Your task to perform on an android device: open app "Pandora - Music & Podcasts" (install if not already installed) and go to login screen Image 0: 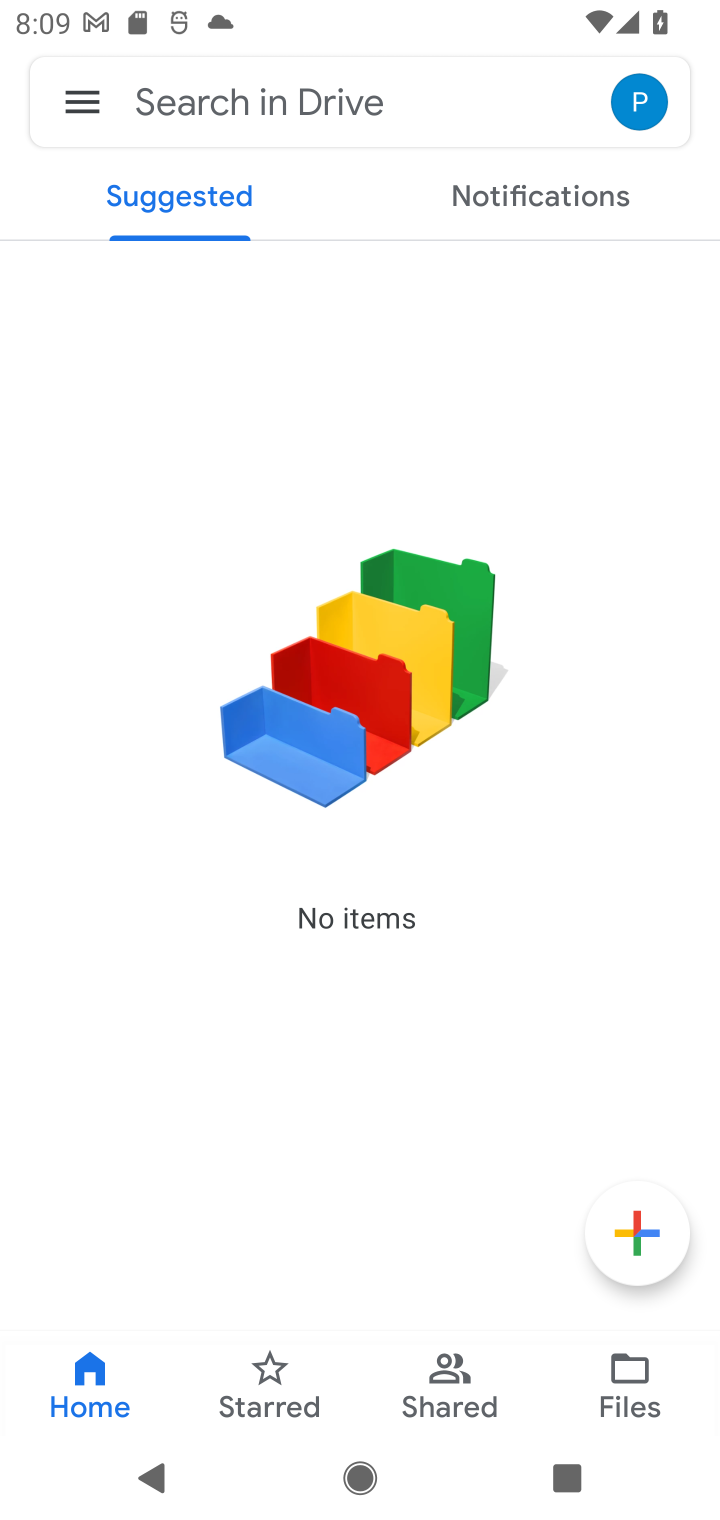
Step 0: press back button
Your task to perform on an android device: open app "Pandora - Music & Podcasts" (install if not already installed) and go to login screen Image 1: 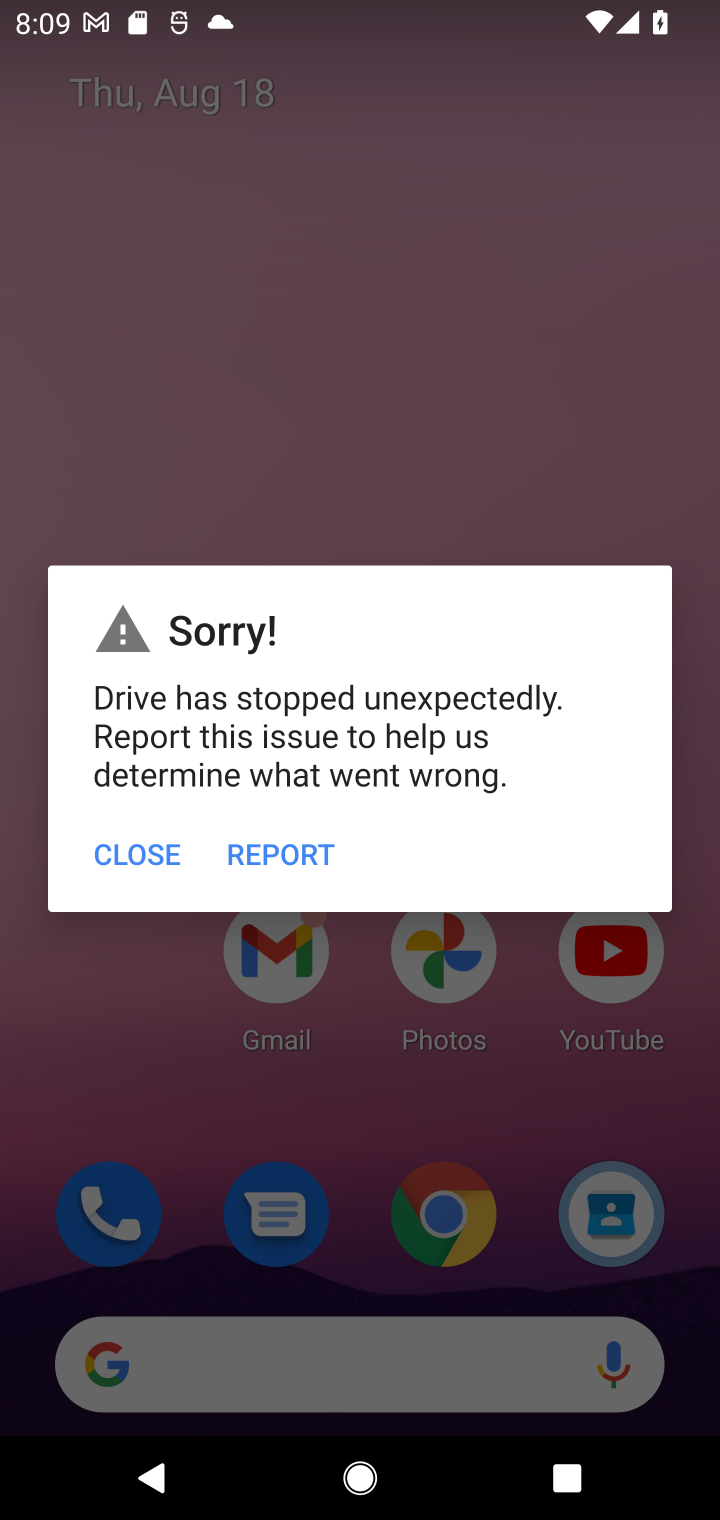
Step 1: click (122, 845)
Your task to perform on an android device: open app "Pandora - Music & Podcasts" (install if not already installed) and go to login screen Image 2: 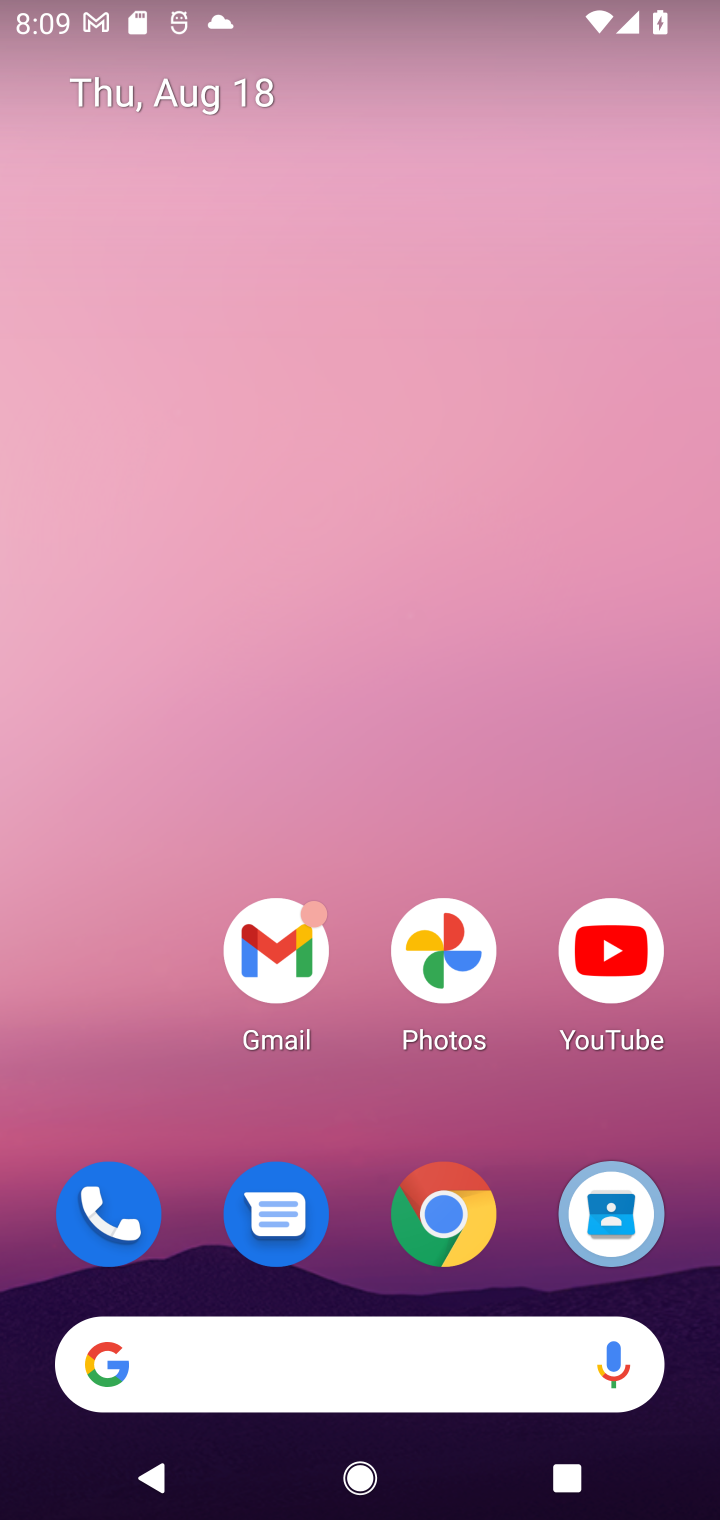
Step 2: drag from (138, 1056) to (275, 52)
Your task to perform on an android device: open app "Pandora - Music & Podcasts" (install if not already installed) and go to login screen Image 3: 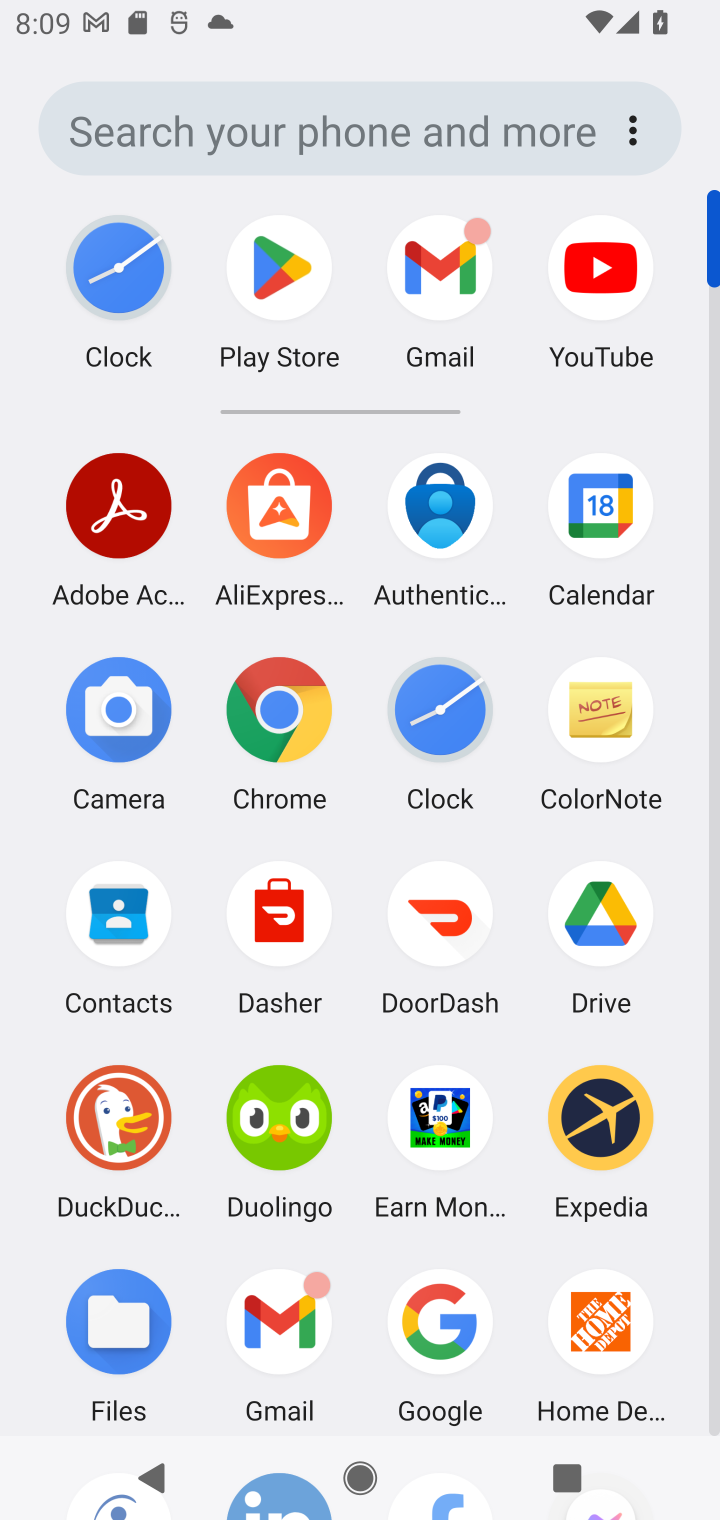
Step 3: click (278, 284)
Your task to perform on an android device: open app "Pandora - Music & Podcasts" (install if not already installed) and go to login screen Image 4: 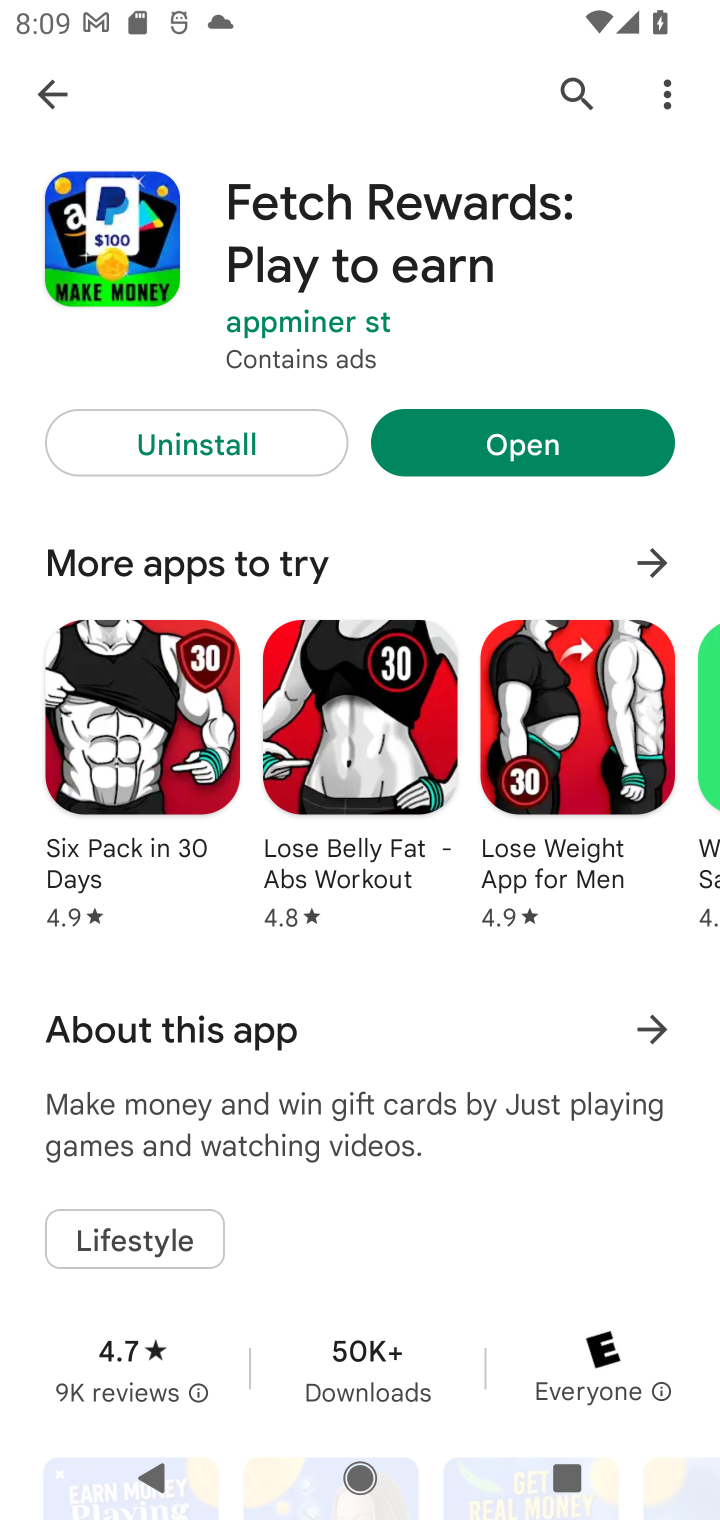
Step 4: click (567, 99)
Your task to perform on an android device: open app "Pandora - Music & Podcasts" (install if not already installed) and go to login screen Image 5: 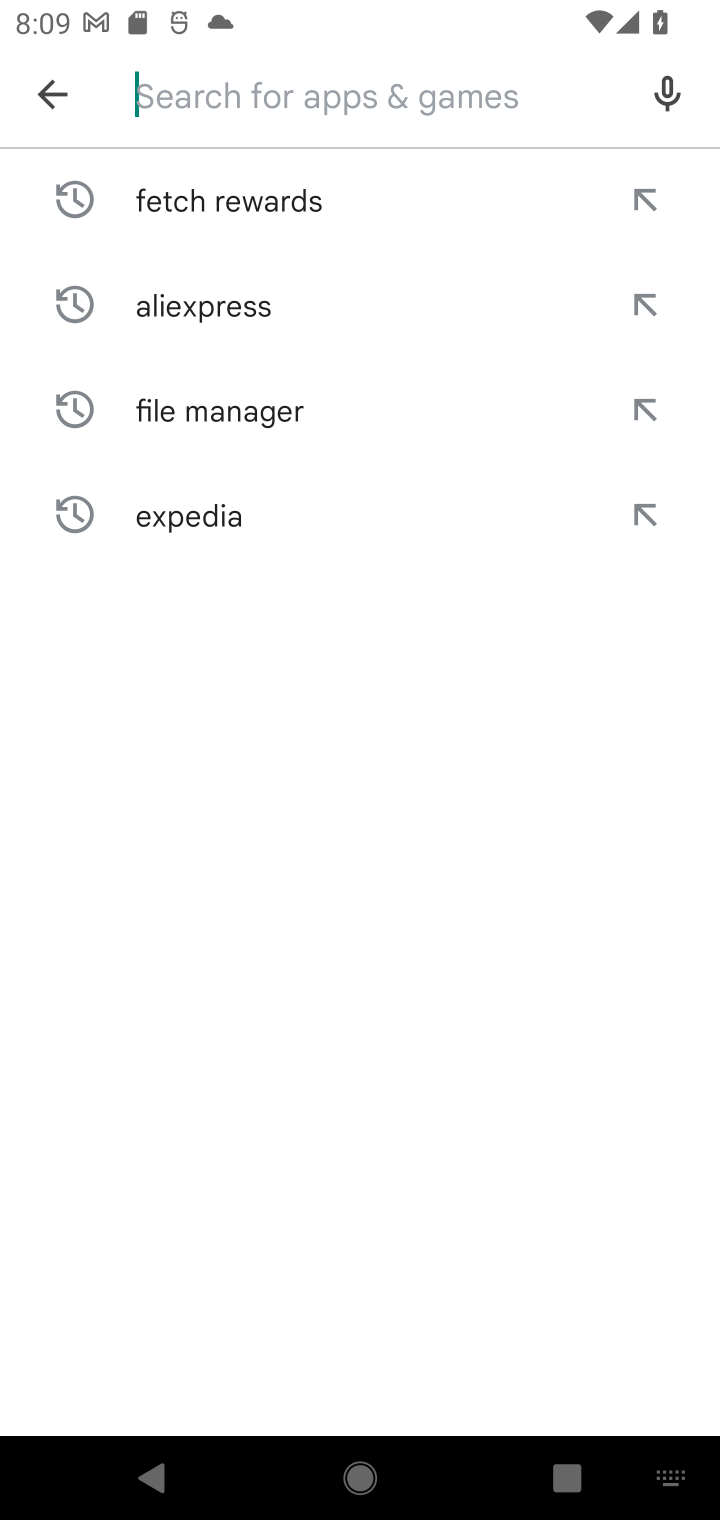
Step 5: click (337, 104)
Your task to perform on an android device: open app "Pandora - Music & Podcasts" (install if not already installed) and go to login screen Image 6: 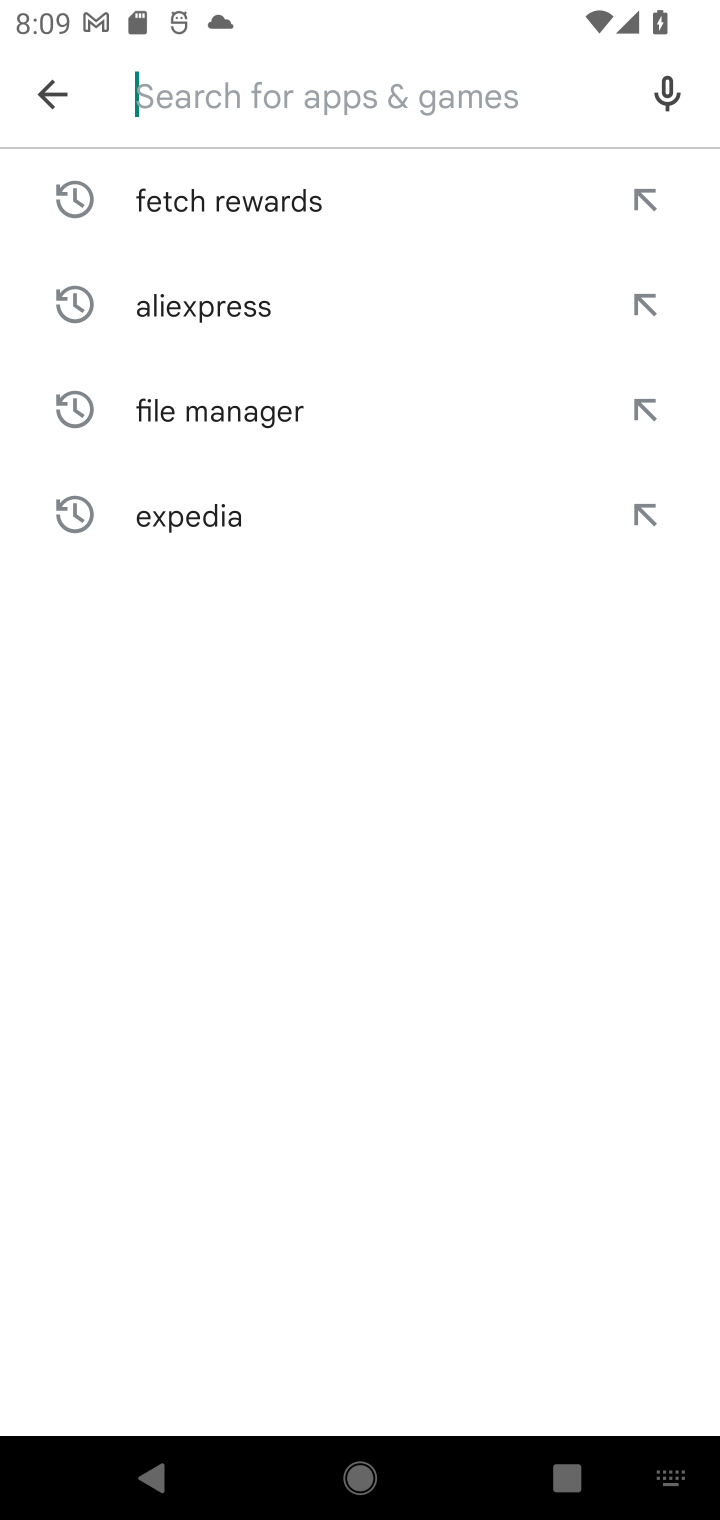
Step 6: type "pandora"
Your task to perform on an android device: open app "Pandora - Music & Podcasts" (install if not already installed) and go to login screen Image 7: 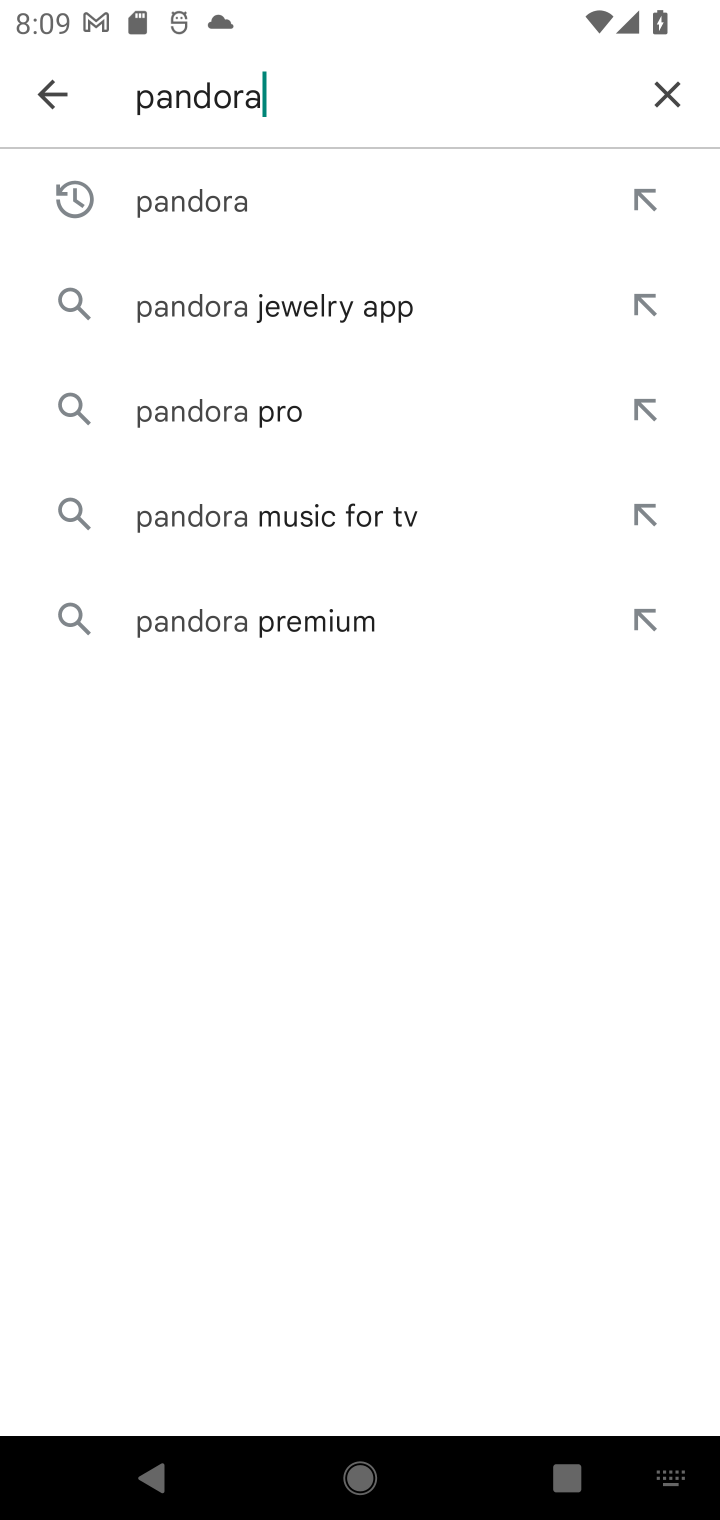
Step 7: click (197, 216)
Your task to perform on an android device: open app "Pandora - Music & Podcasts" (install if not already installed) and go to login screen Image 8: 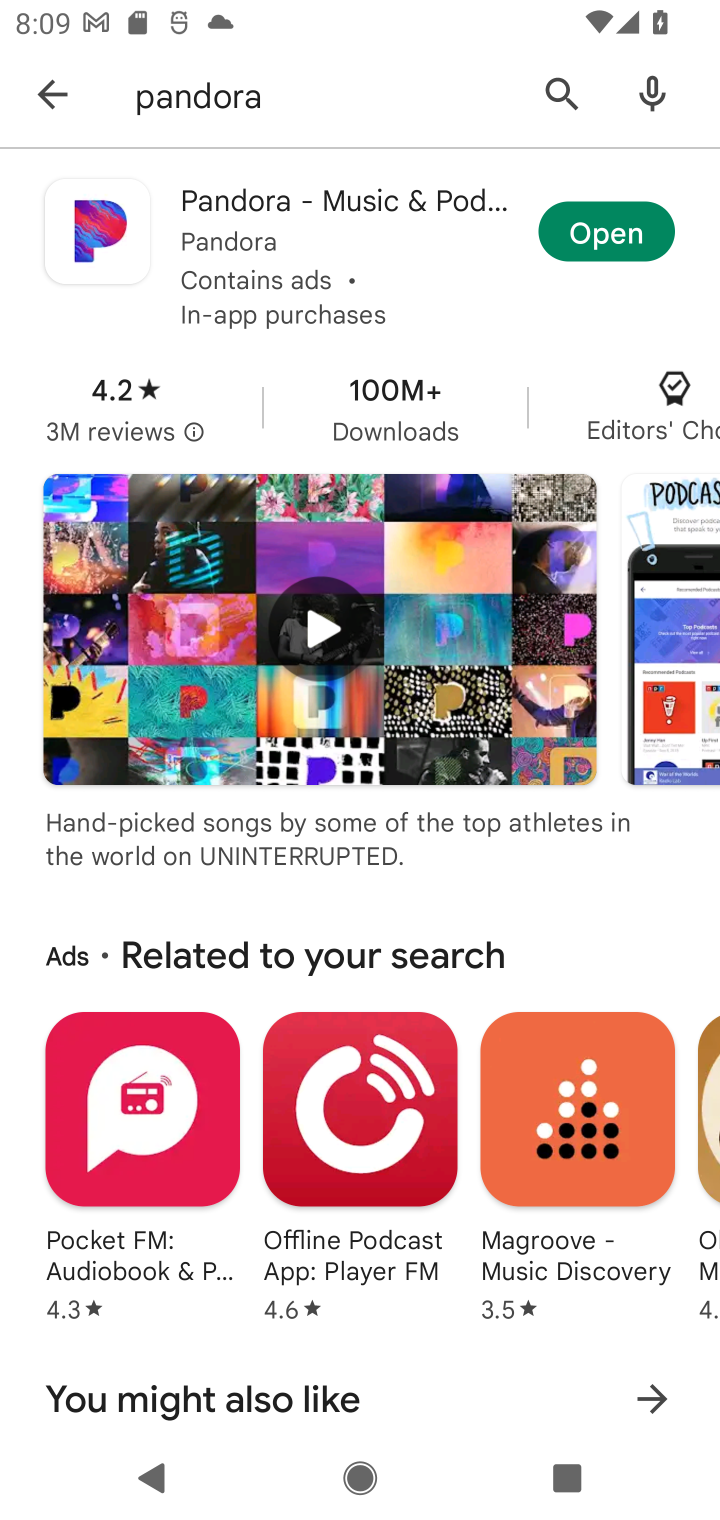
Step 8: click (607, 249)
Your task to perform on an android device: open app "Pandora - Music & Podcasts" (install if not already installed) and go to login screen Image 9: 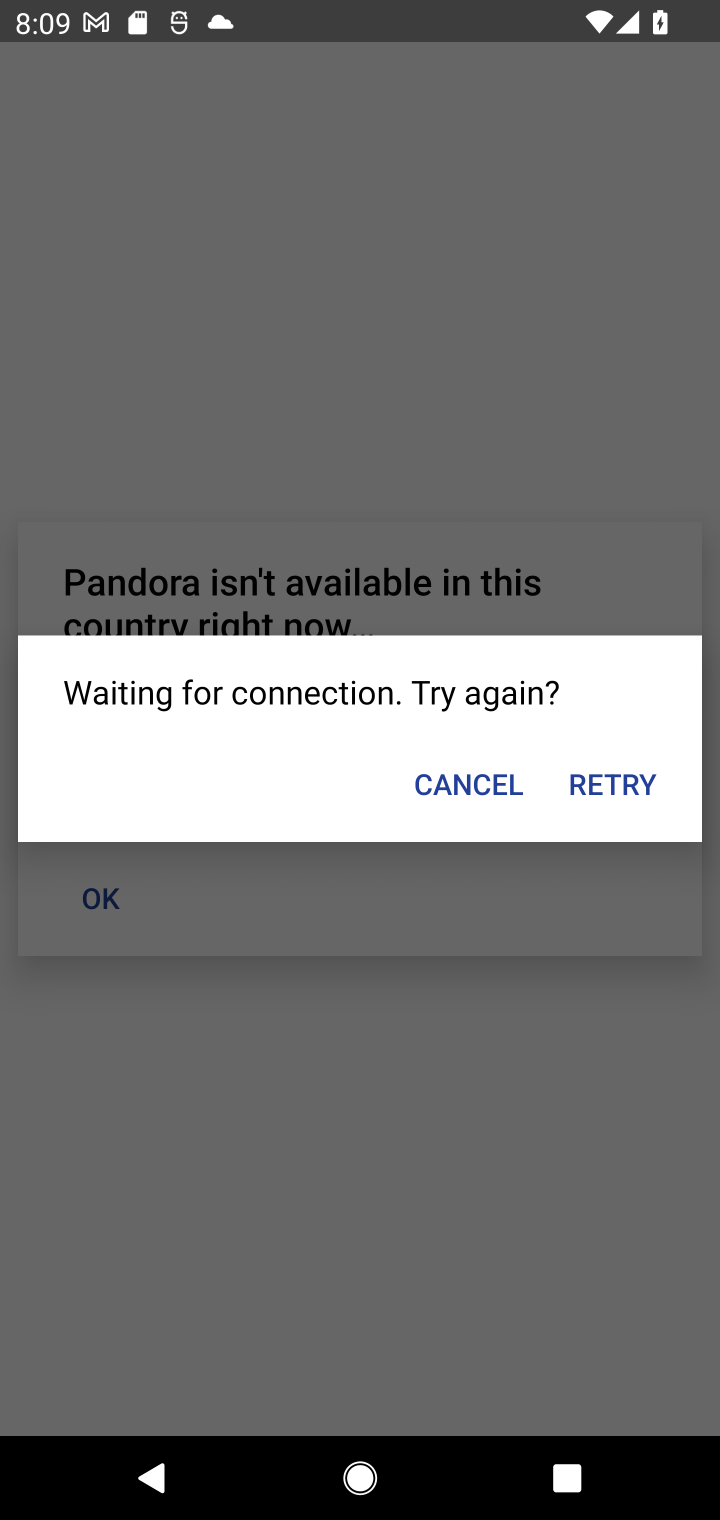
Step 9: click (478, 767)
Your task to perform on an android device: open app "Pandora - Music & Podcasts" (install if not already installed) and go to login screen Image 10: 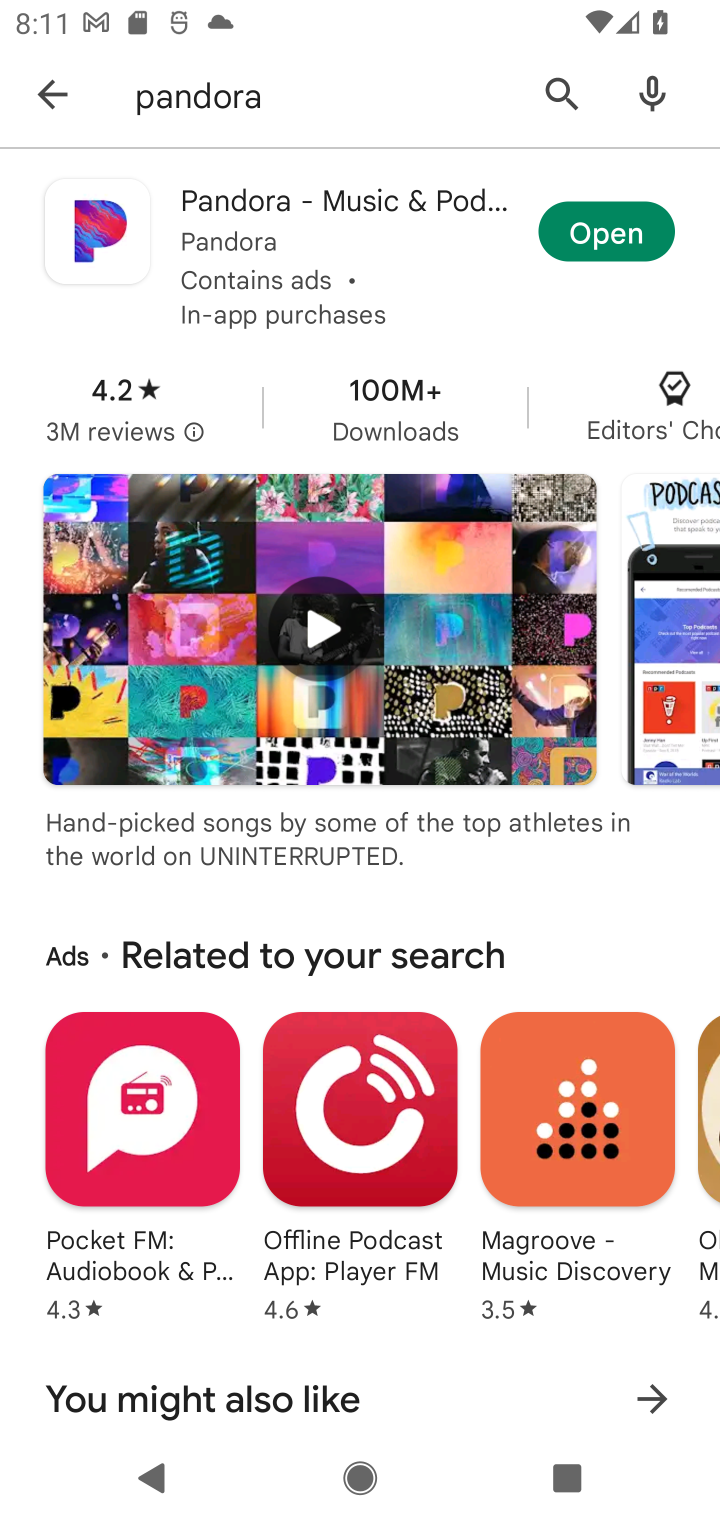
Step 10: click (571, 234)
Your task to perform on an android device: open app "Pandora - Music & Podcasts" (install if not already installed) and go to login screen Image 11: 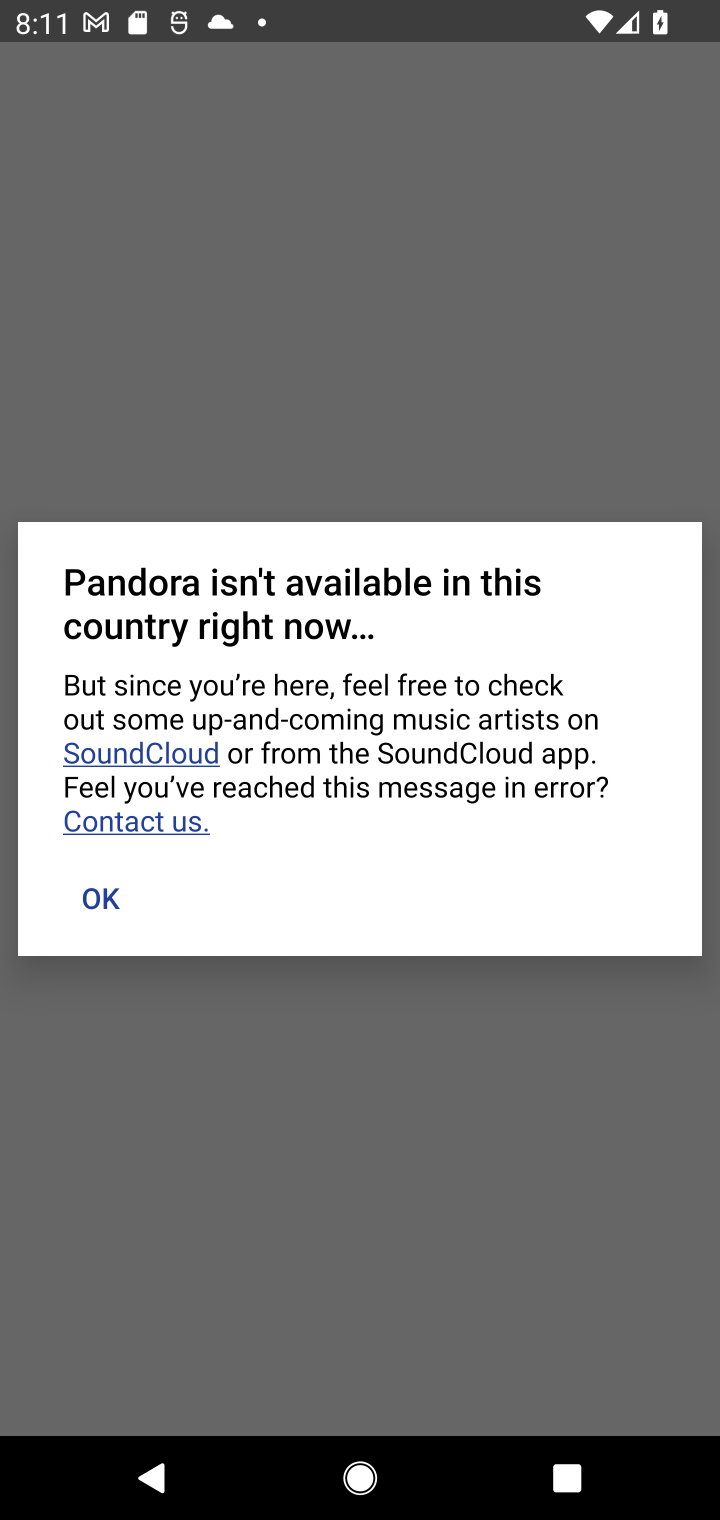
Step 11: task complete